Your task to perform on an android device: install app "Google Keep" Image 0: 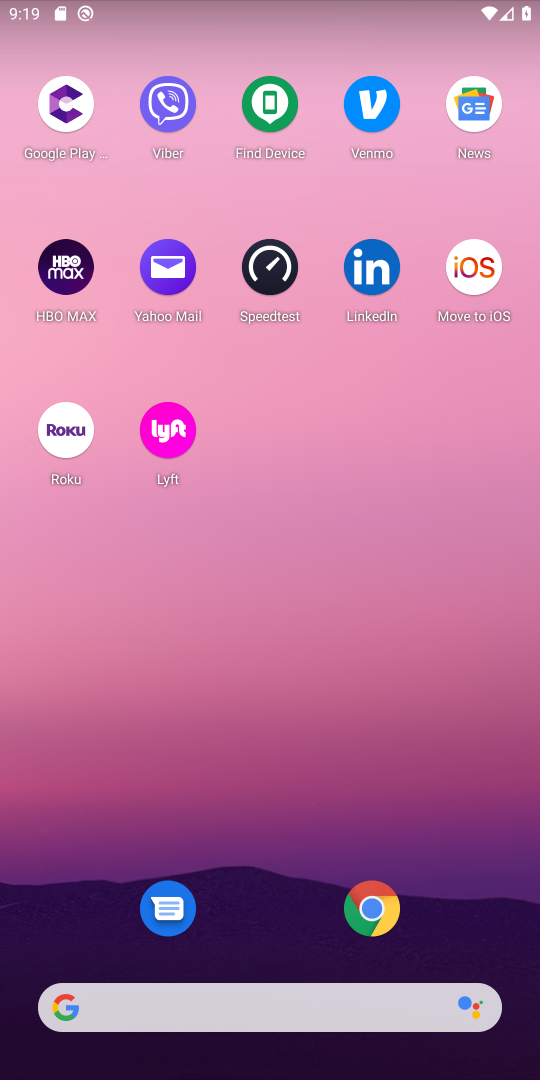
Step 0: drag from (234, 948) to (296, 5)
Your task to perform on an android device: install app "Google Keep" Image 1: 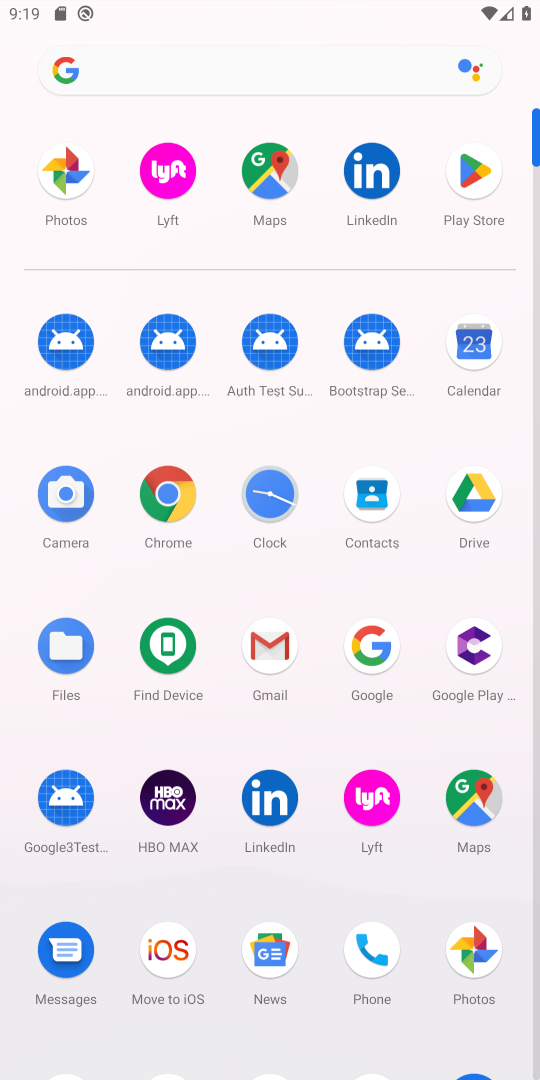
Step 1: click (480, 210)
Your task to perform on an android device: install app "Google Keep" Image 2: 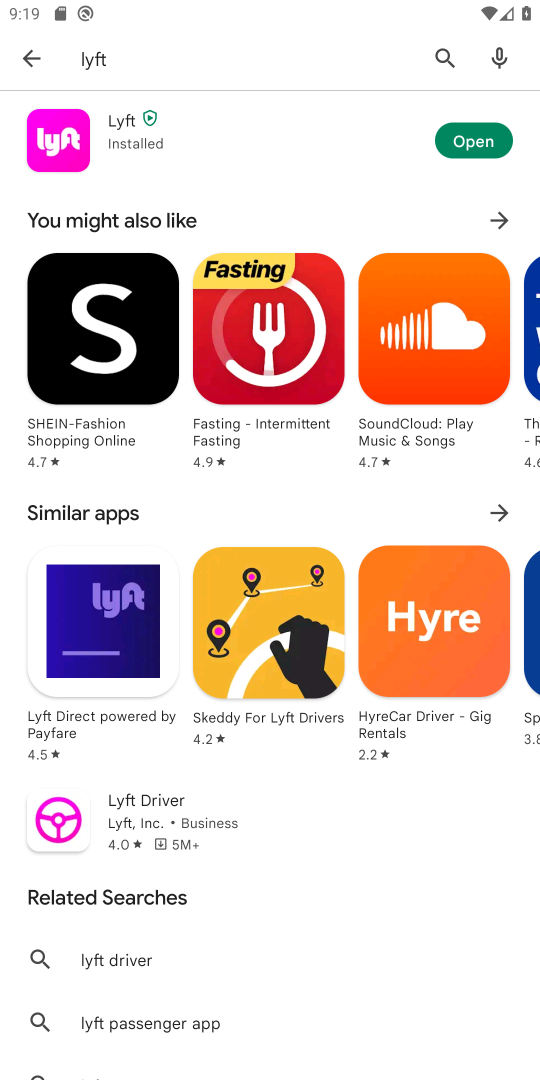
Step 2: click (276, 74)
Your task to perform on an android device: install app "Google Keep" Image 3: 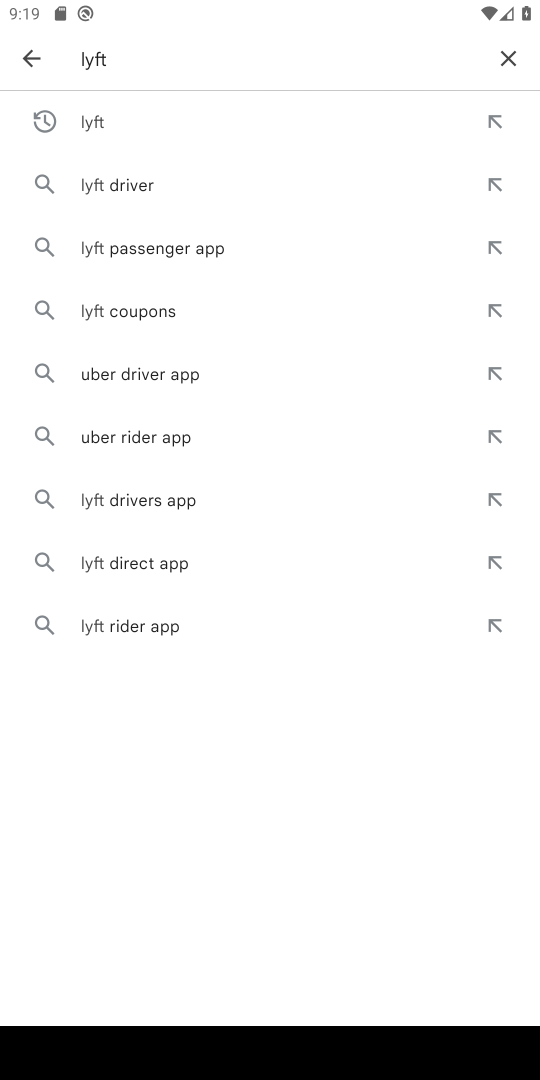
Step 3: click (513, 61)
Your task to perform on an android device: install app "Google Keep" Image 4: 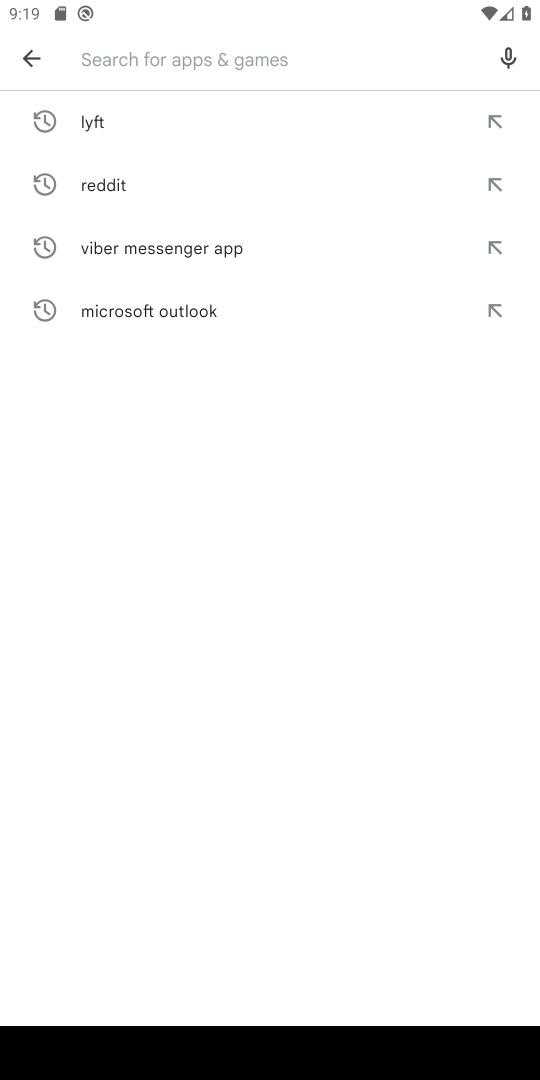
Step 4: type "google keep"
Your task to perform on an android device: install app "Google Keep" Image 5: 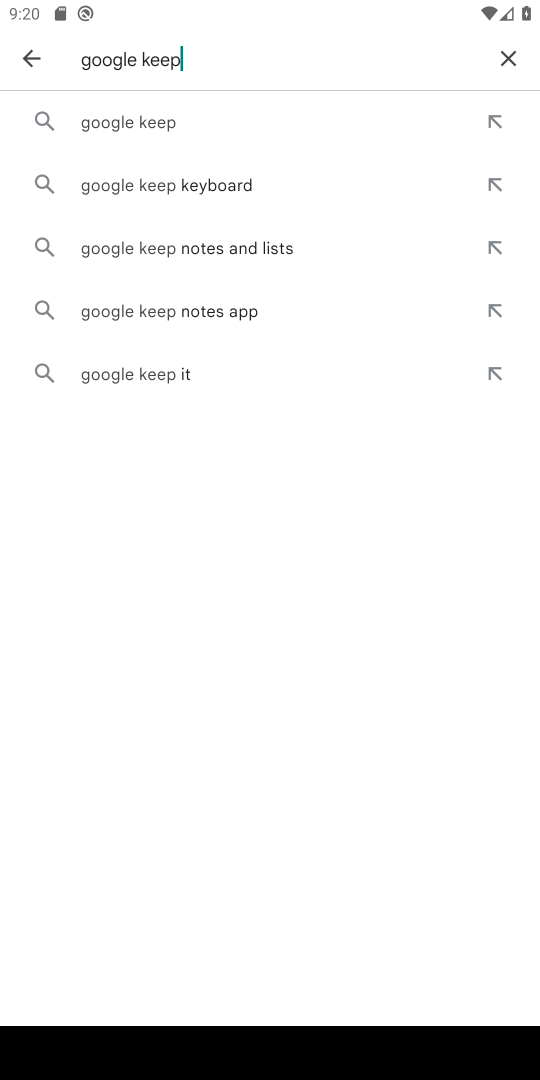
Step 5: click (110, 128)
Your task to perform on an android device: install app "Google Keep" Image 6: 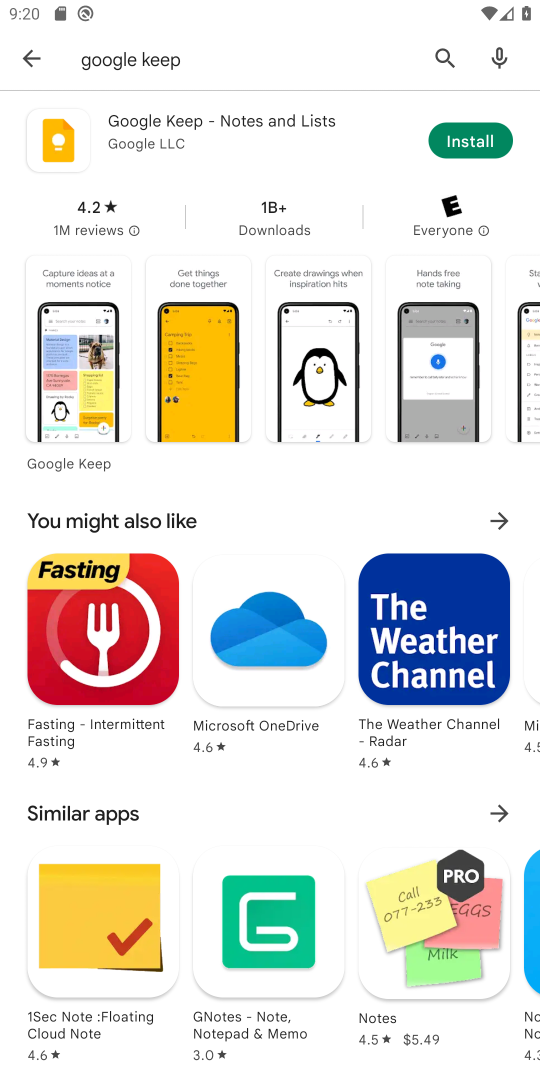
Step 6: click (469, 144)
Your task to perform on an android device: install app "Google Keep" Image 7: 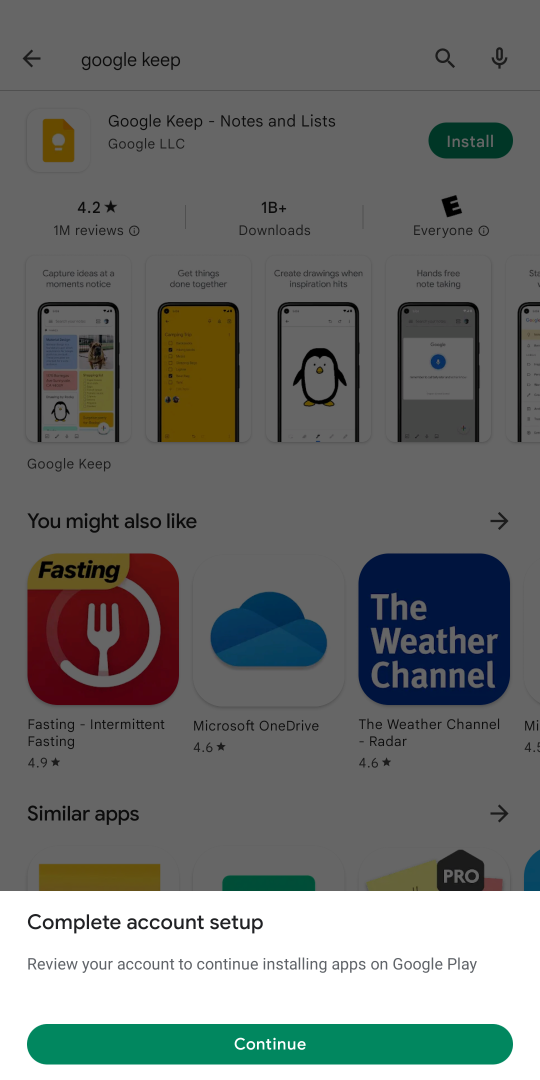
Step 7: click (242, 1046)
Your task to perform on an android device: install app "Google Keep" Image 8: 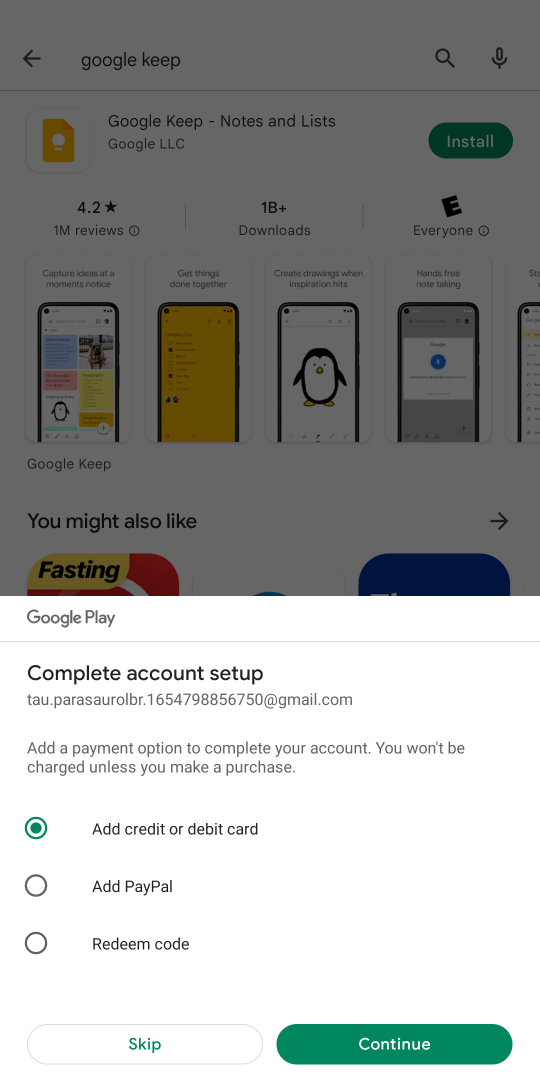
Step 8: click (146, 1030)
Your task to perform on an android device: install app "Google Keep" Image 9: 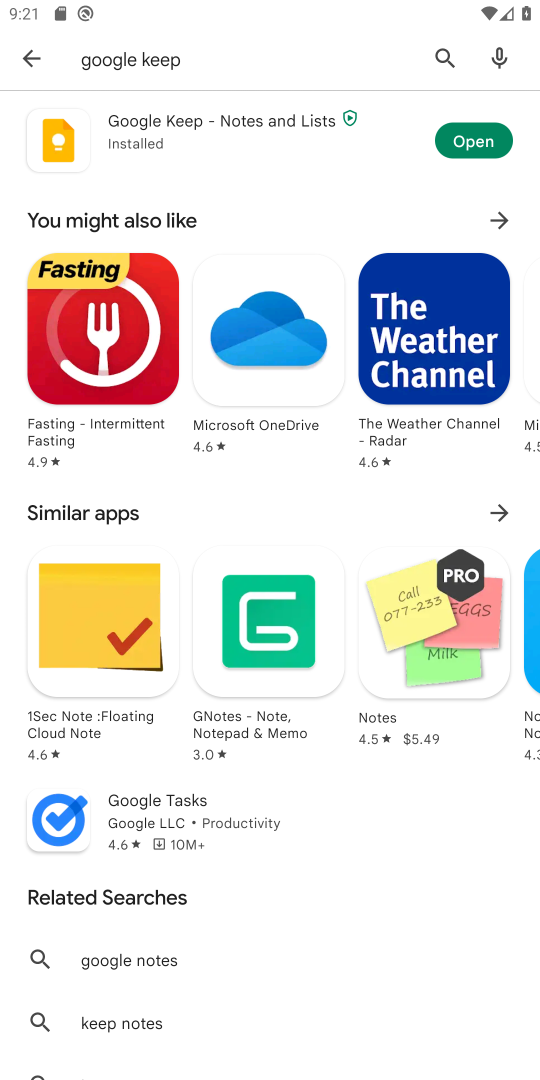
Step 9: task complete